Your task to perform on an android device: Go to battery settings Image 0: 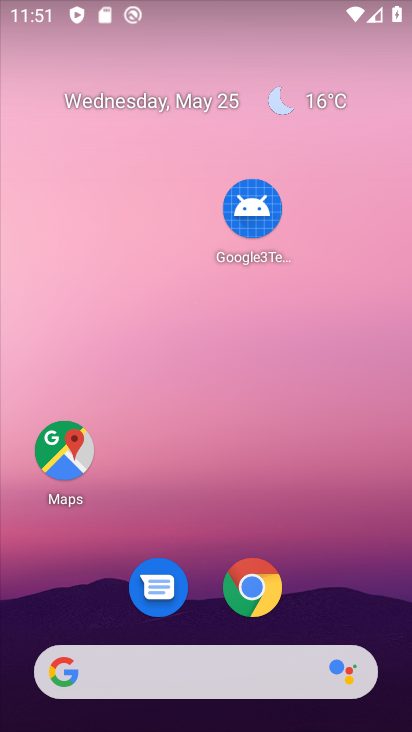
Step 0: drag from (193, 656) to (213, 215)
Your task to perform on an android device: Go to battery settings Image 1: 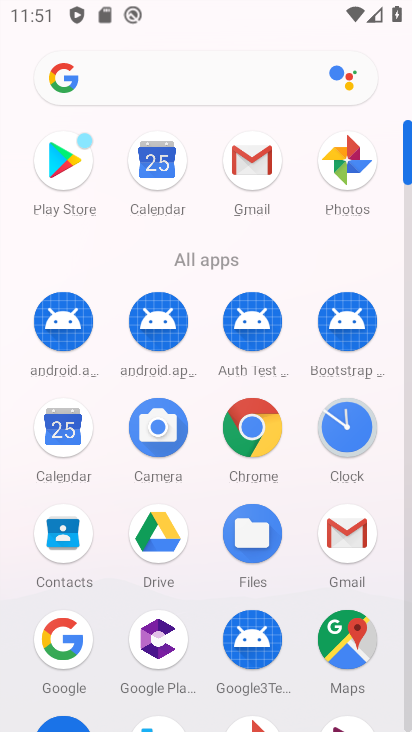
Step 1: drag from (207, 607) to (208, 216)
Your task to perform on an android device: Go to battery settings Image 2: 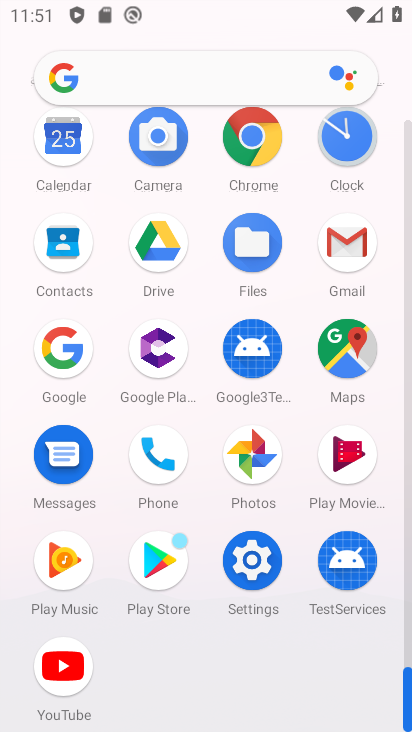
Step 2: click (248, 585)
Your task to perform on an android device: Go to battery settings Image 3: 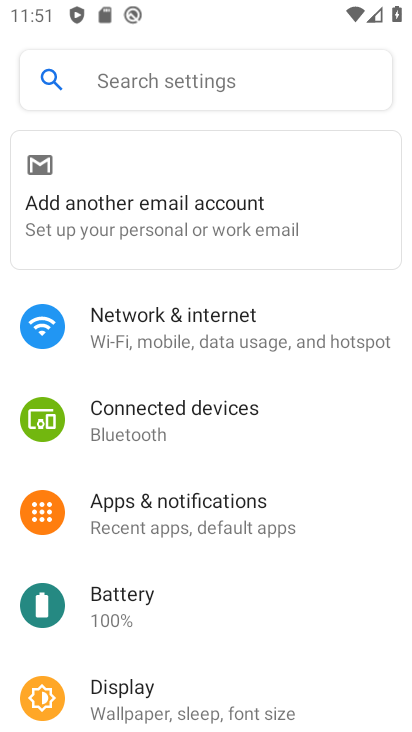
Step 3: click (253, 609)
Your task to perform on an android device: Go to battery settings Image 4: 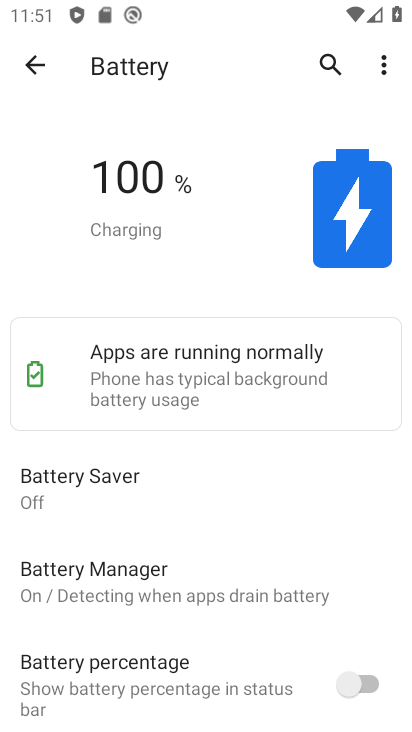
Step 4: task complete